Your task to perform on an android device: turn on airplane mode Image 0: 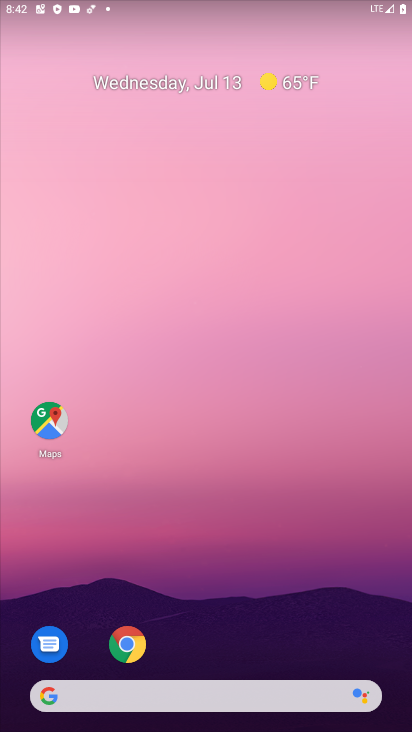
Step 0: drag from (243, 687) to (186, 23)
Your task to perform on an android device: turn on airplane mode Image 1: 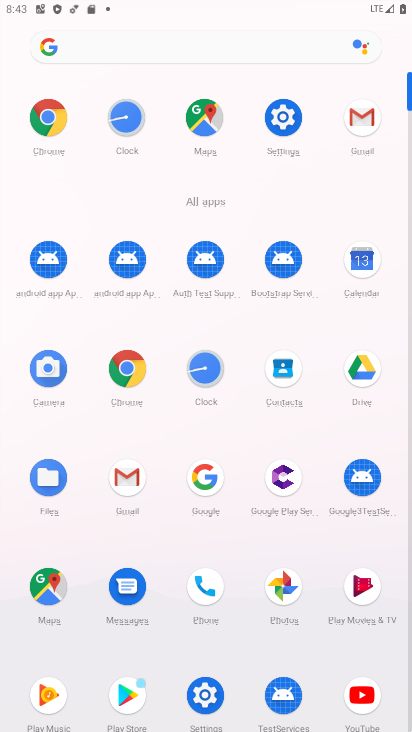
Step 1: click (295, 122)
Your task to perform on an android device: turn on airplane mode Image 2: 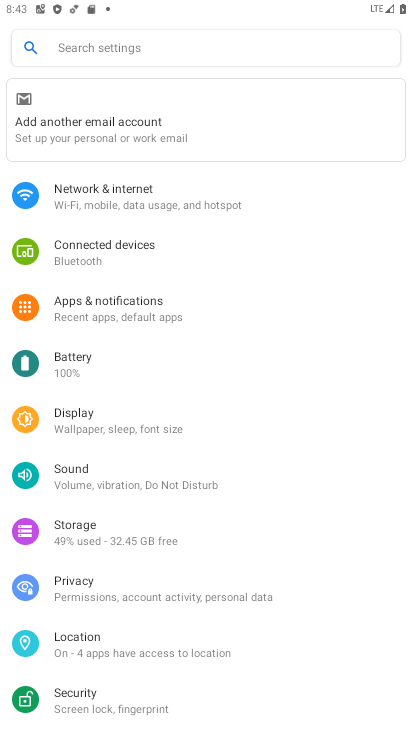
Step 2: click (172, 188)
Your task to perform on an android device: turn on airplane mode Image 3: 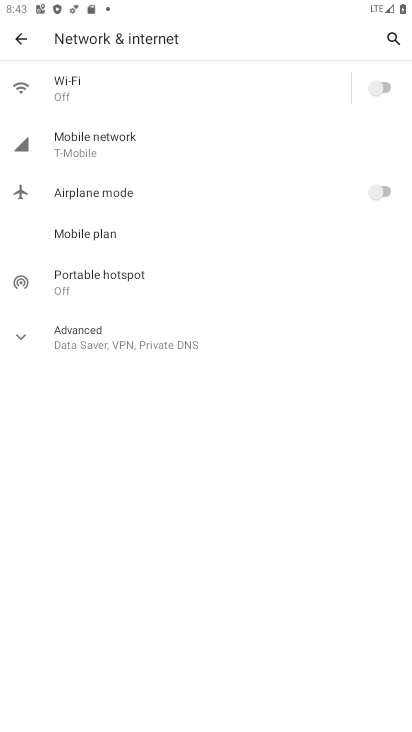
Step 3: click (117, 207)
Your task to perform on an android device: turn on airplane mode Image 4: 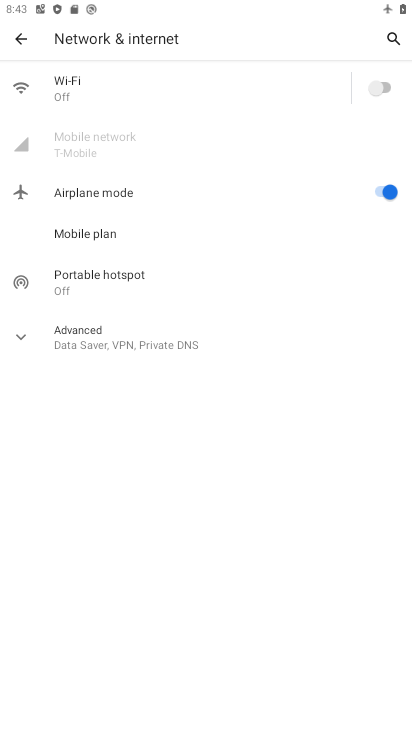
Step 4: task complete